Your task to perform on an android device: Go to Google Image 0: 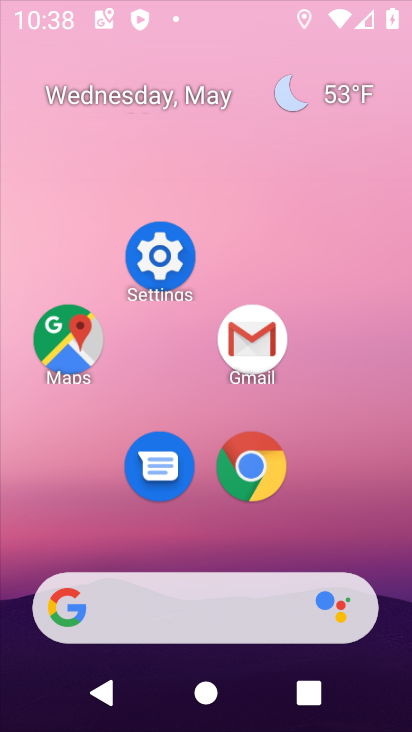
Step 0: click (278, 59)
Your task to perform on an android device: Go to Google Image 1: 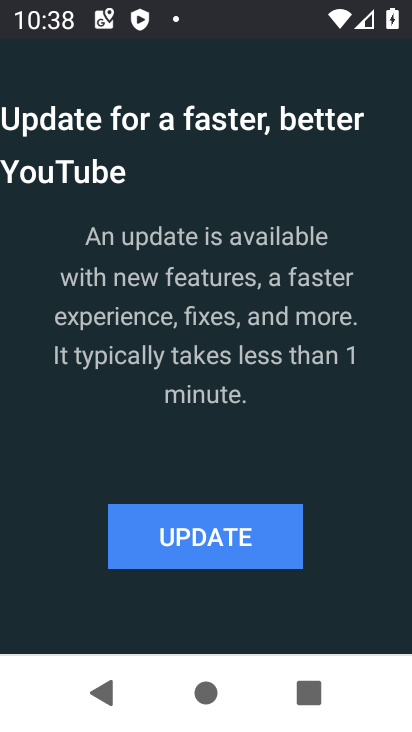
Step 1: click (181, 560)
Your task to perform on an android device: Go to Google Image 2: 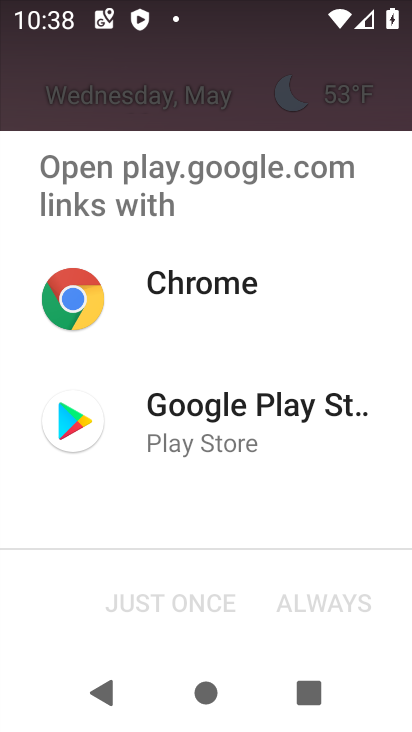
Step 2: press home button
Your task to perform on an android device: Go to Google Image 3: 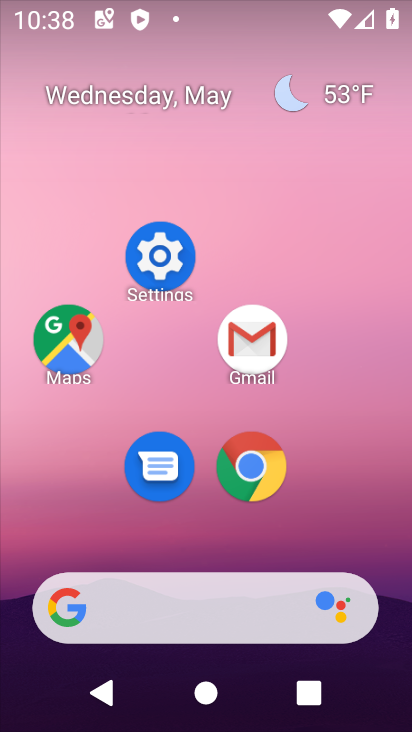
Step 3: drag from (207, 567) to (219, 223)
Your task to perform on an android device: Go to Google Image 4: 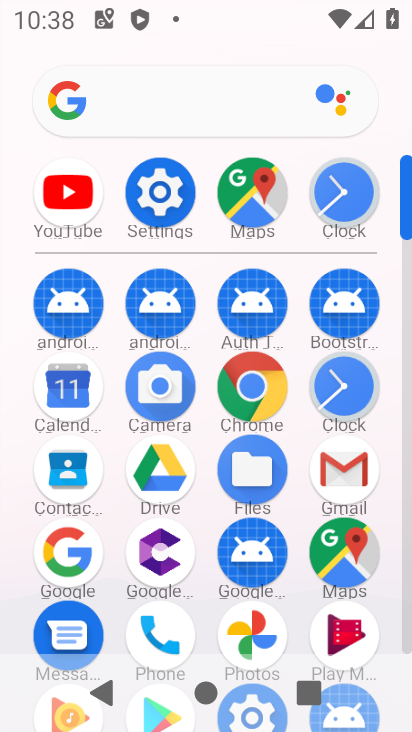
Step 4: click (93, 555)
Your task to perform on an android device: Go to Google Image 5: 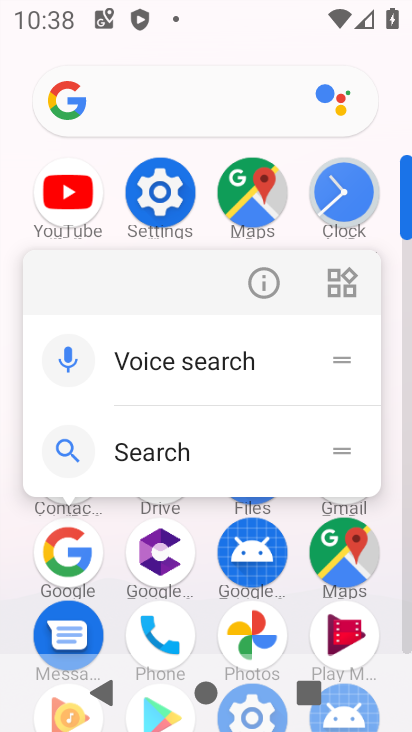
Step 5: click (278, 275)
Your task to perform on an android device: Go to Google Image 6: 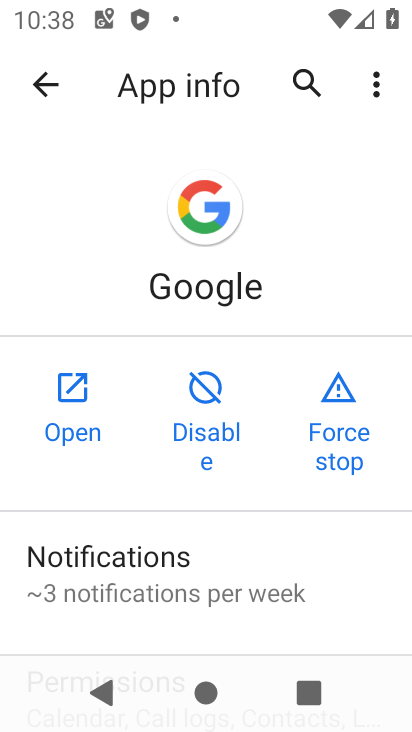
Step 6: click (107, 405)
Your task to perform on an android device: Go to Google Image 7: 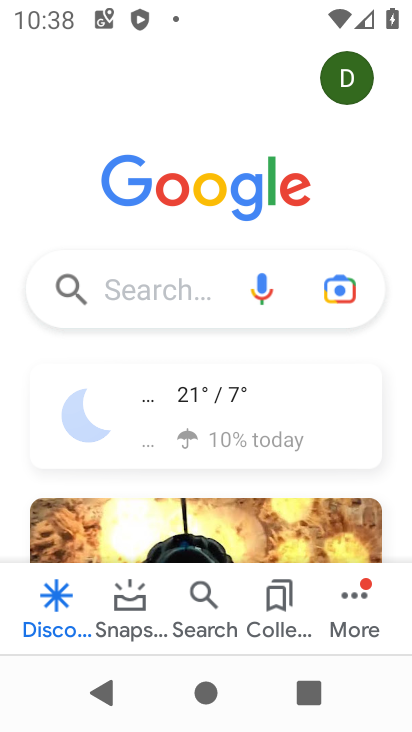
Step 7: task complete